Your task to perform on an android device: delete browsing data in the chrome app Image 0: 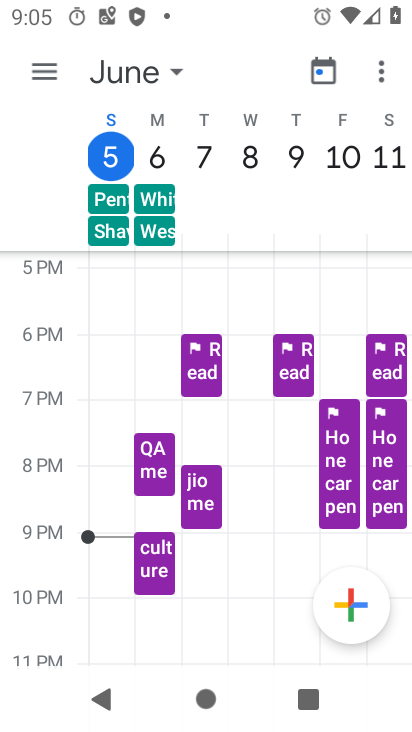
Step 0: press back button
Your task to perform on an android device: delete browsing data in the chrome app Image 1: 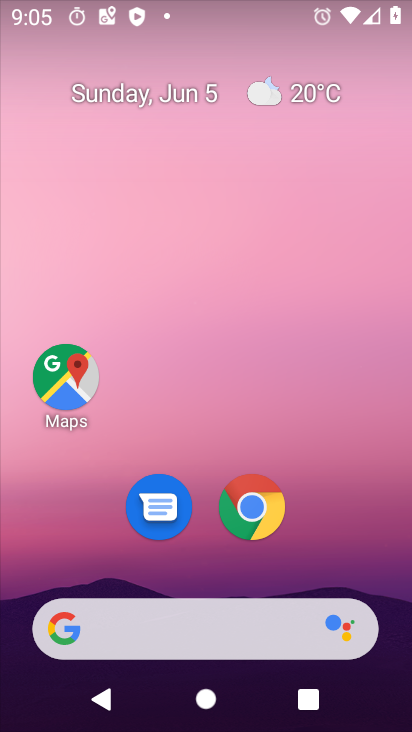
Step 1: drag from (313, 529) to (244, 21)
Your task to perform on an android device: delete browsing data in the chrome app Image 2: 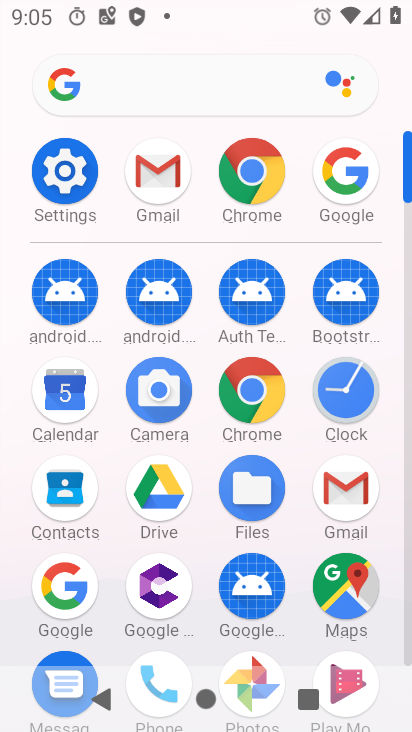
Step 2: click (253, 170)
Your task to perform on an android device: delete browsing data in the chrome app Image 3: 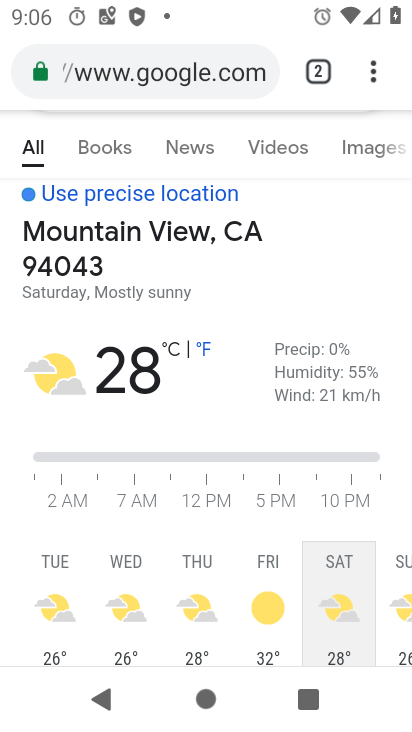
Step 3: drag from (374, 73) to (116, 399)
Your task to perform on an android device: delete browsing data in the chrome app Image 4: 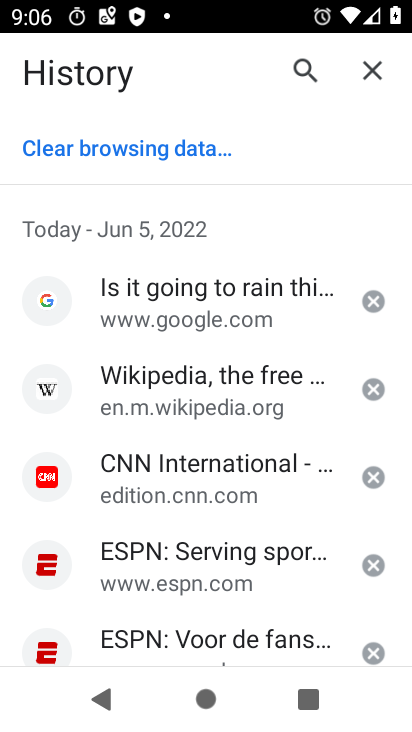
Step 4: click (118, 141)
Your task to perform on an android device: delete browsing data in the chrome app Image 5: 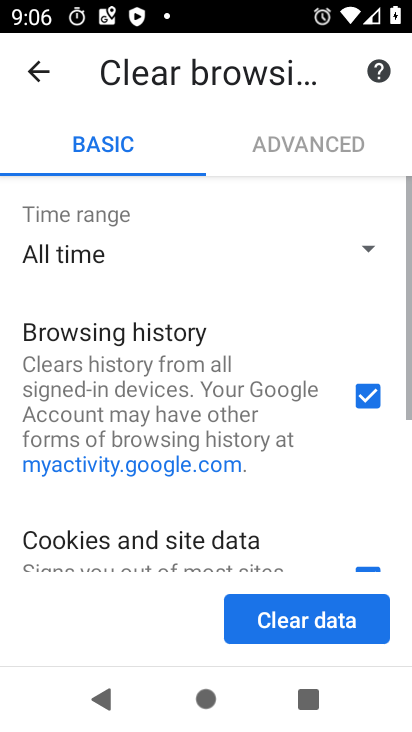
Step 5: click (295, 609)
Your task to perform on an android device: delete browsing data in the chrome app Image 6: 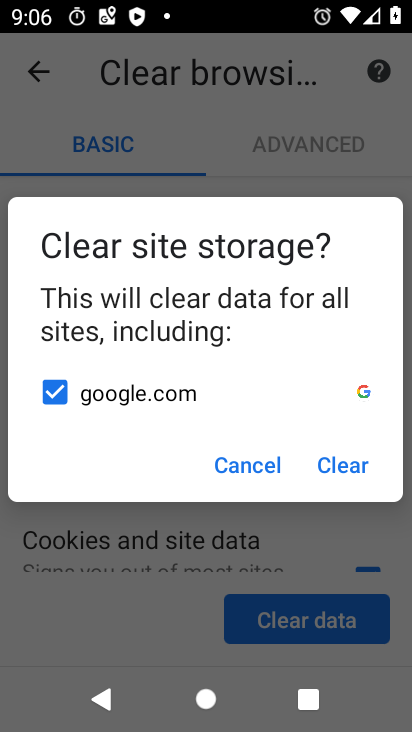
Step 6: click (335, 460)
Your task to perform on an android device: delete browsing data in the chrome app Image 7: 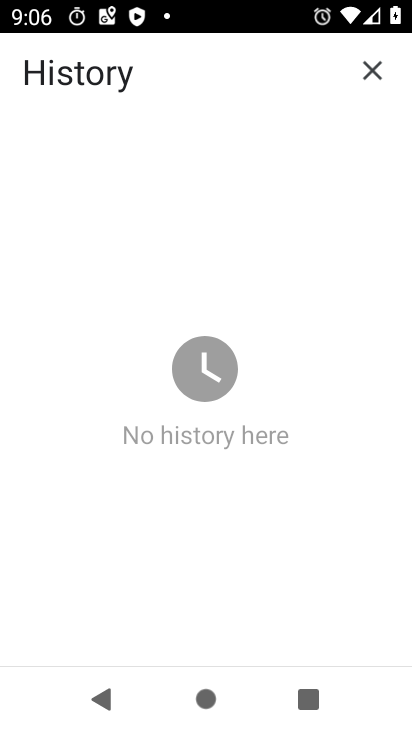
Step 7: task complete